Your task to perform on an android device: set default search engine in the chrome app Image 0: 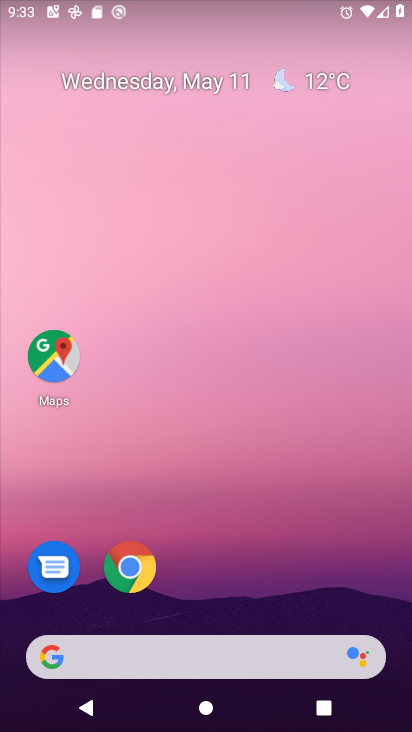
Step 0: click (133, 565)
Your task to perform on an android device: set default search engine in the chrome app Image 1: 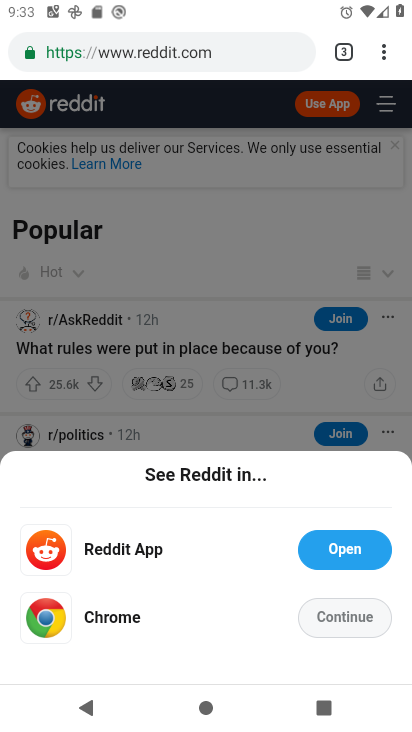
Step 1: click (390, 54)
Your task to perform on an android device: set default search engine in the chrome app Image 2: 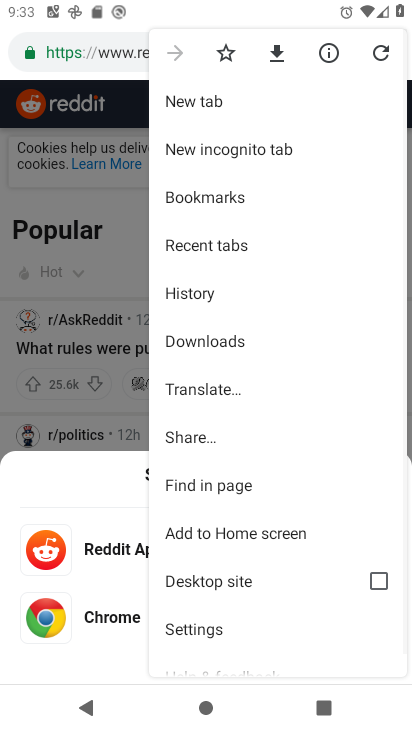
Step 2: click (232, 624)
Your task to perform on an android device: set default search engine in the chrome app Image 3: 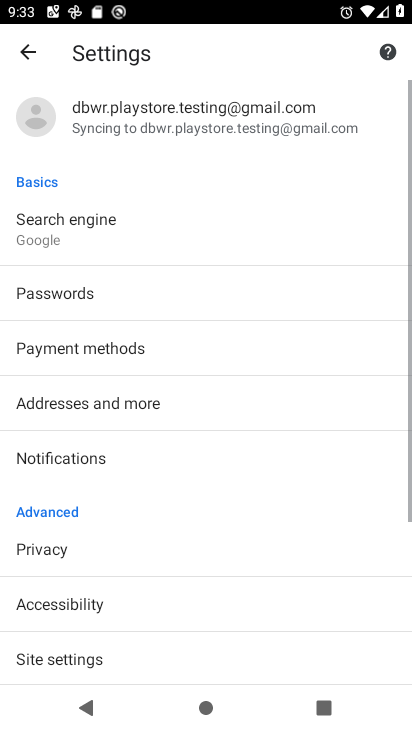
Step 3: click (98, 237)
Your task to perform on an android device: set default search engine in the chrome app Image 4: 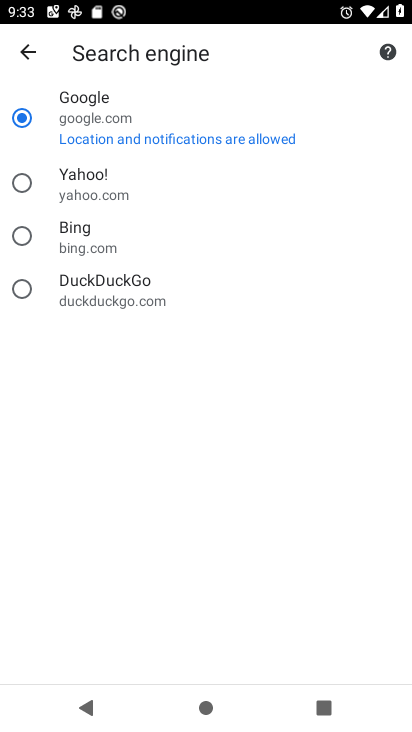
Step 4: click (141, 109)
Your task to perform on an android device: set default search engine in the chrome app Image 5: 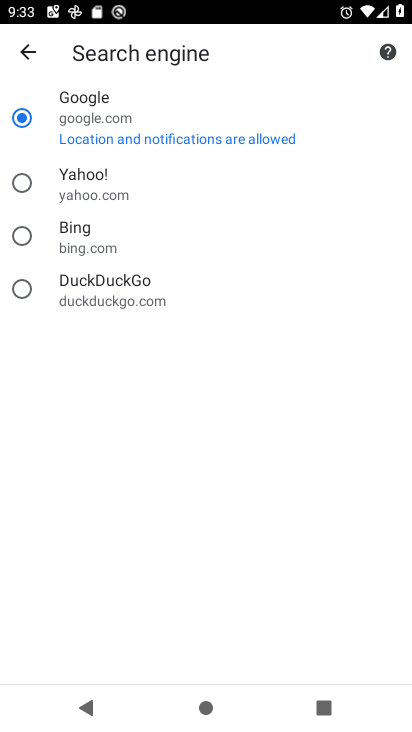
Step 5: task complete